Your task to perform on an android device: Go to privacy settings Image 0: 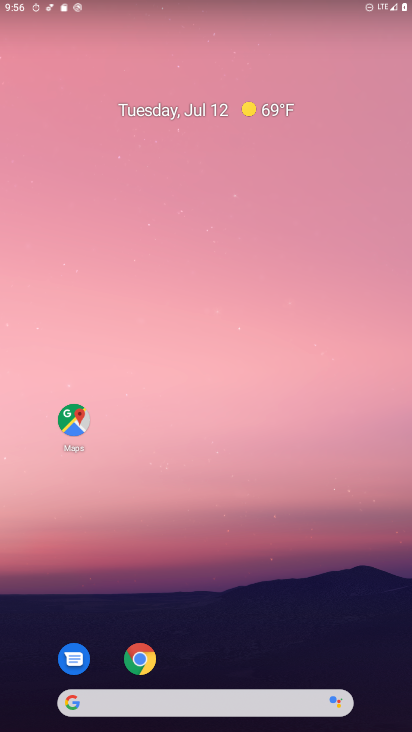
Step 0: drag from (209, 725) to (192, 200)
Your task to perform on an android device: Go to privacy settings Image 1: 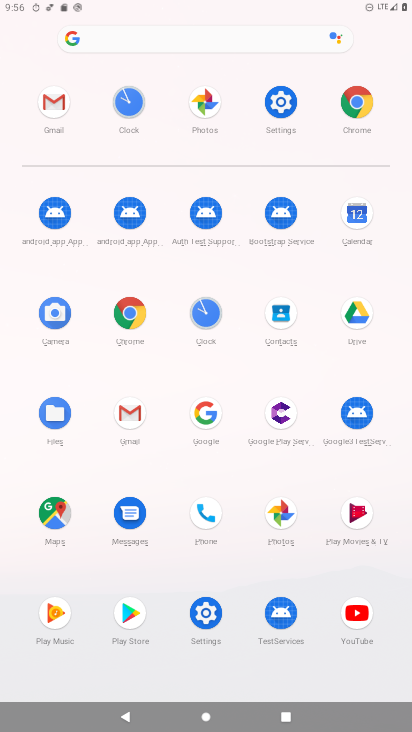
Step 1: click (278, 100)
Your task to perform on an android device: Go to privacy settings Image 2: 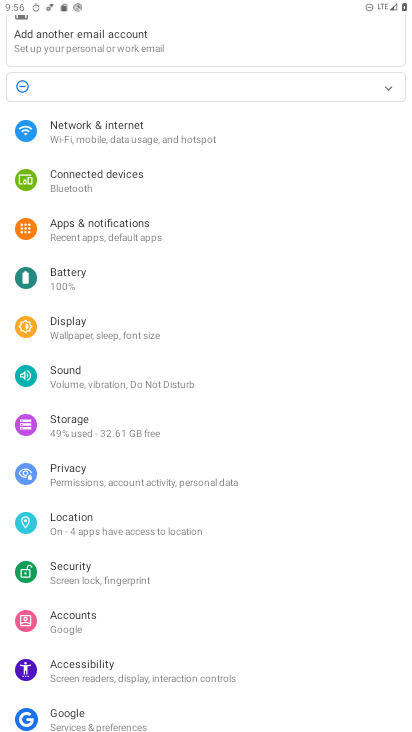
Step 2: click (75, 475)
Your task to perform on an android device: Go to privacy settings Image 3: 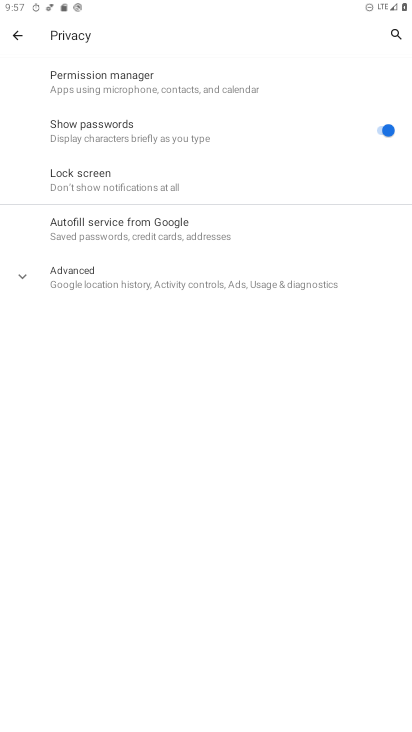
Step 3: task complete